Your task to perform on an android device: search for starred emails in the gmail app Image 0: 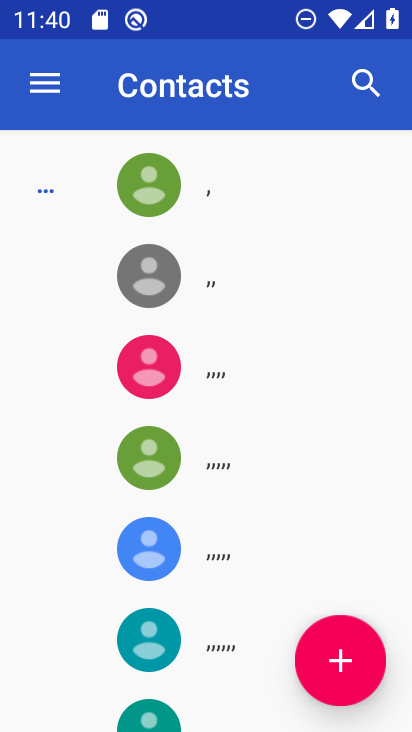
Step 0: press home button
Your task to perform on an android device: search for starred emails in the gmail app Image 1: 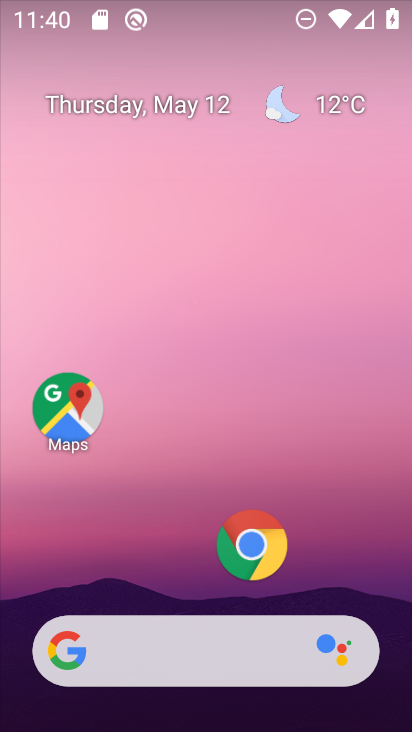
Step 1: drag from (185, 581) to (184, 64)
Your task to perform on an android device: search for starred emails in the gmail app Image 2: 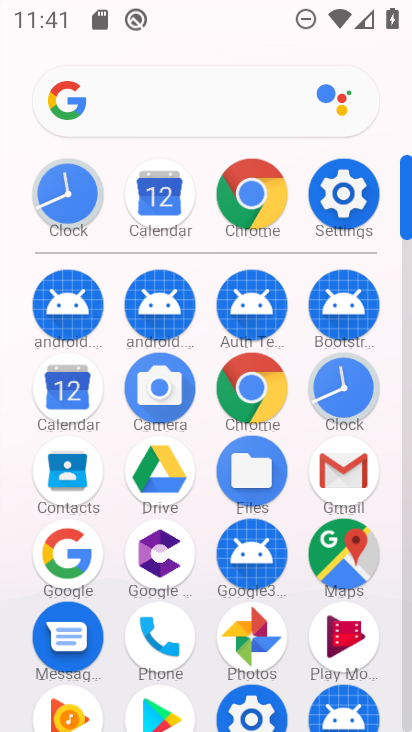
Step 2: click (339, 467)
Your task to perform on an android device: search for starred emails in the gmail app Image 3: 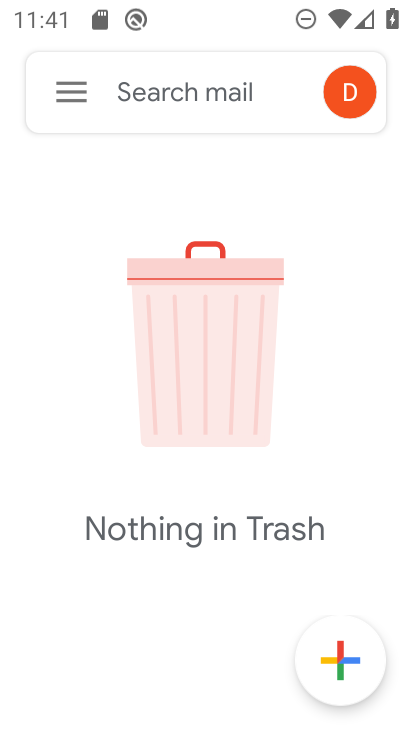
Step 3: click (65, 92)
Your task to perform on an android device: search for starred emails in the gmail app Image 4: 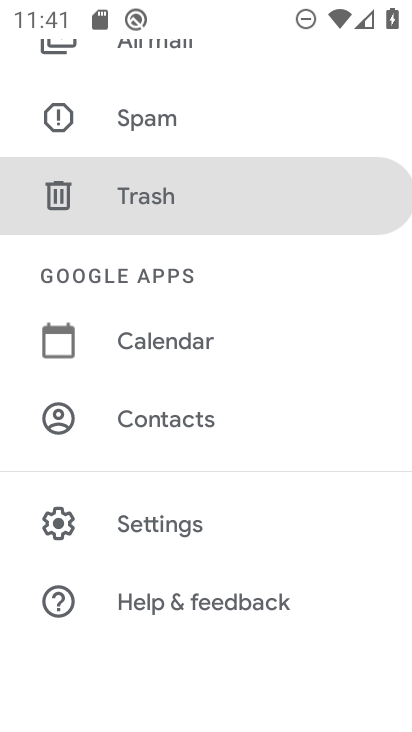
Step 4: drag from (85, 83) to (111, 672)
Your task to perform on an android device: search for starred emails in the gmail app Image 5: 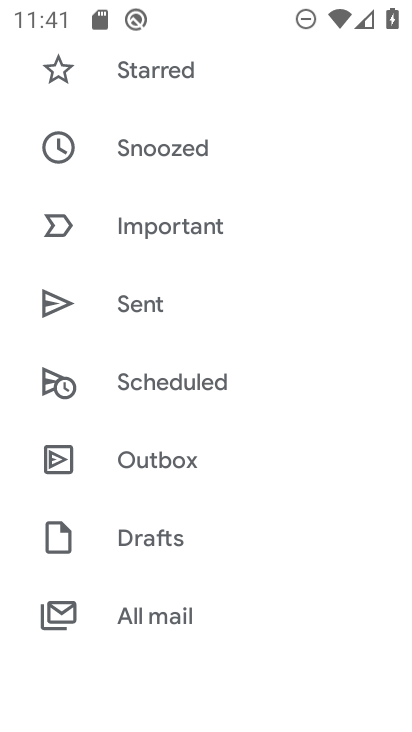
Step 5: click (90, 68)
Your task to perform on an android device: search for starred emails in the gmail app Image 6: 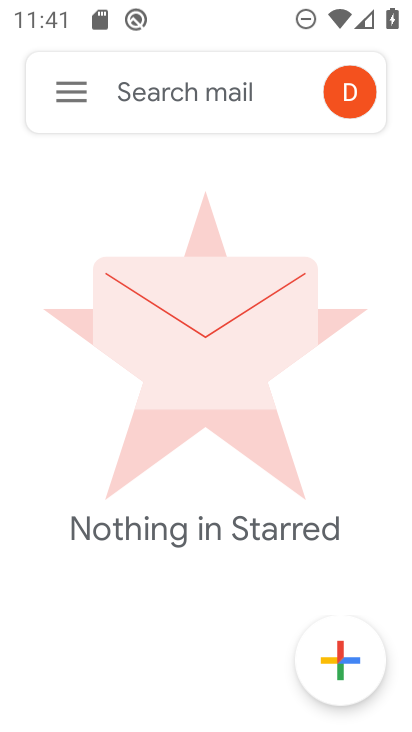
Step 6: task complete